Your task to perform on an android device: Open location settings Image 0: 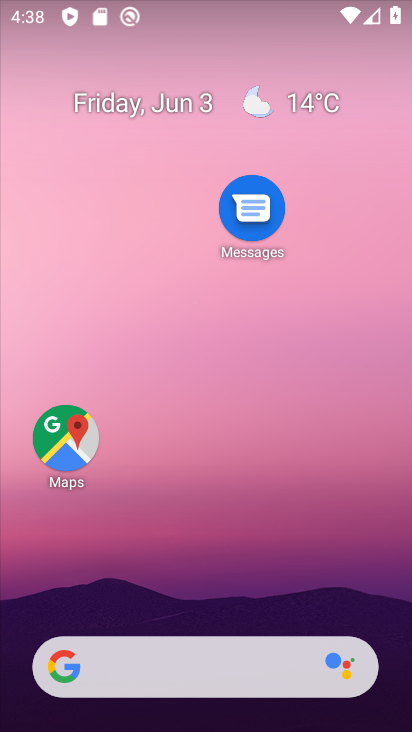
Step 0: drag from (204, 617) to (285, 213)
Your task to perform on an android device: Open location settings Image 1: 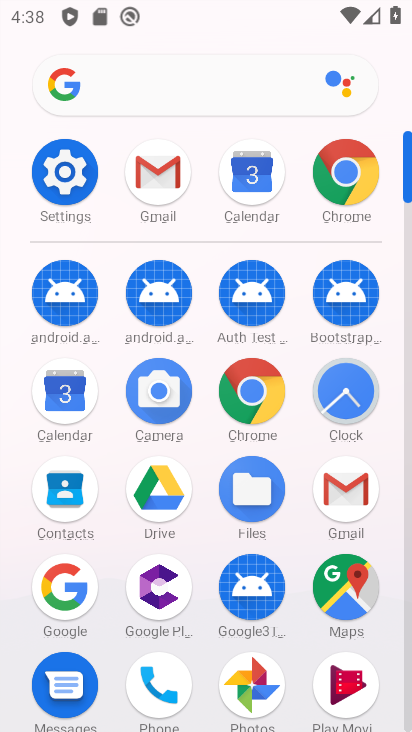
Step 1: click (60, 184)
Your task to perform on an android device: Open location settings Image 2: 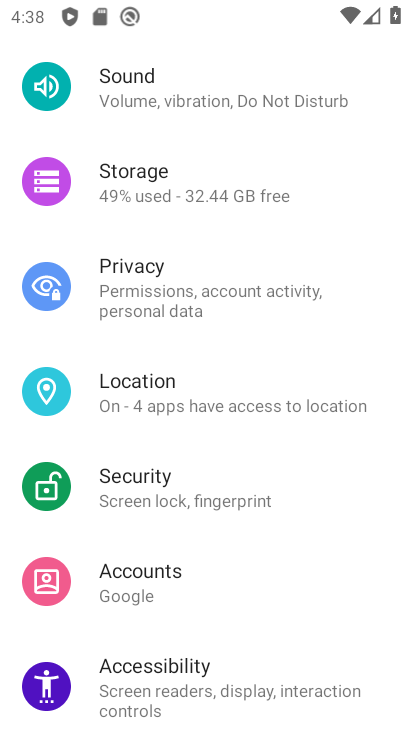
Step 2: click (174, 403)
Your task to perform on an android device: Open location settings Image 3: 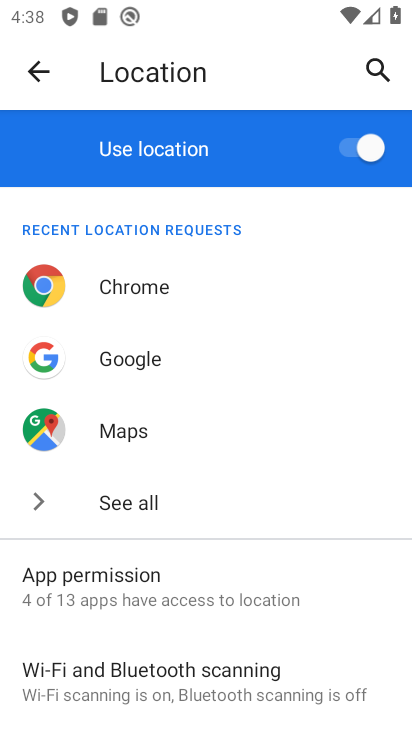
Step 3: task complete